Your task to perform on an android device: open the mobile data screen to see how much data has been used Image 0: 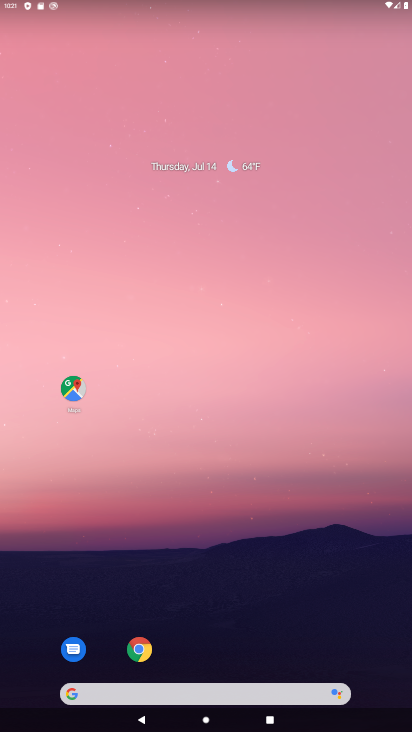
Step 0: press home button
Your task to perform on an android device: open the mobile data screen to see how much data has been used Image 1: 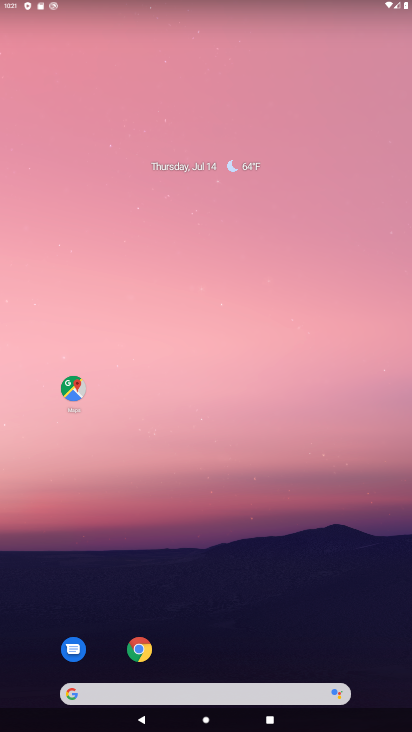
Step 1: drag from (284, 609) to (253, 123)
Your task to perform on an android device: open the mobile data screen to see how much data has been used Image 2: 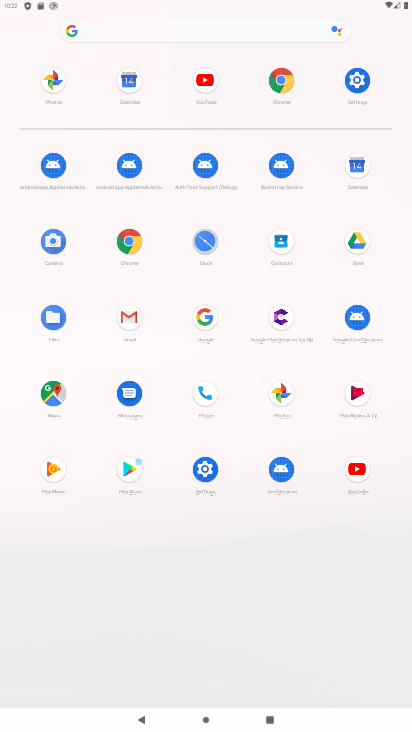
Step 2: drag from (275, 5) to (282, 574)
Your task to perform on an android device: open the mobile data screen to see how much data has been used Image 3: 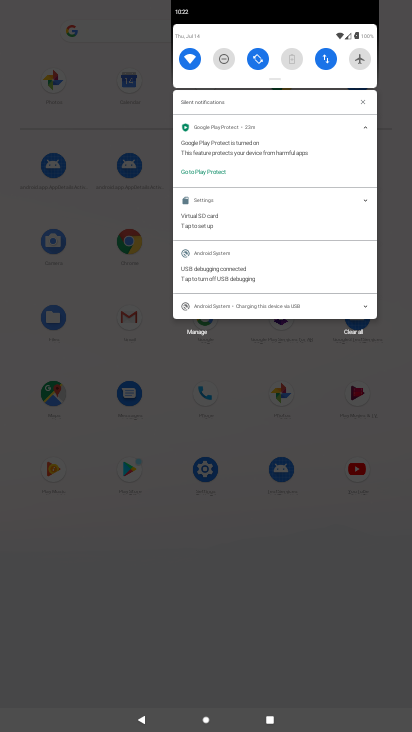
Step 3: click (332, 48)
Your task to perform on an android device: open the mobile data screen to see how much data has been used Image 4: 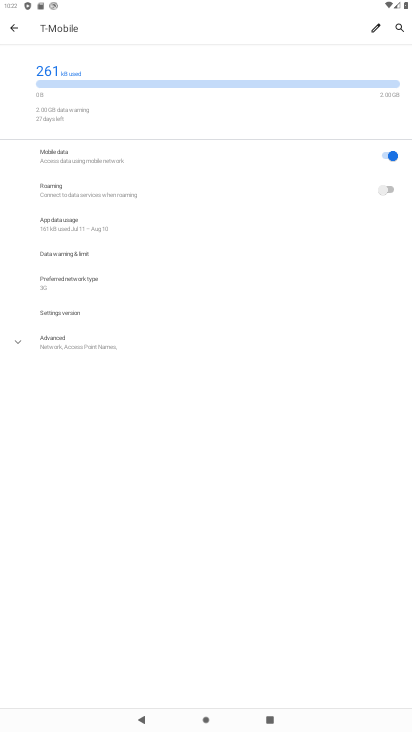
Step 4: task complete